Your task to perform on an android device: turn off wifi Image 0: 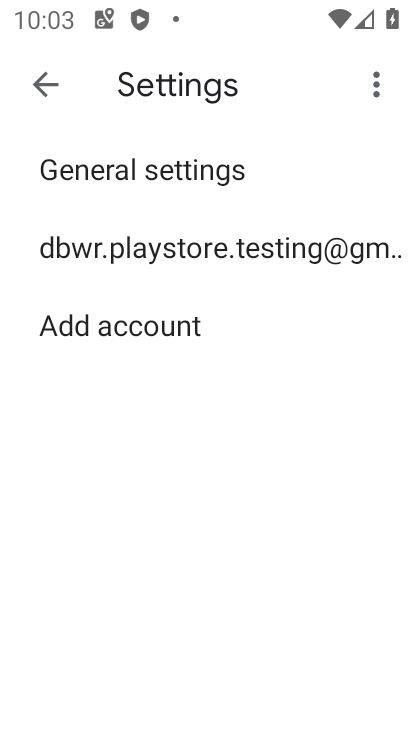
Step 0: press home button
Your task to perform on an android device: turn off wifi Image 1: 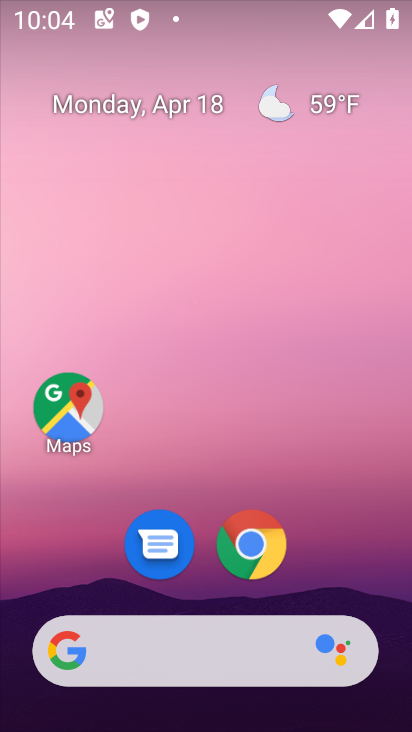
Step 1: drag from (319, 564) to (297, 184)
Your task to perform on an android device: turn off wifi Image 2: 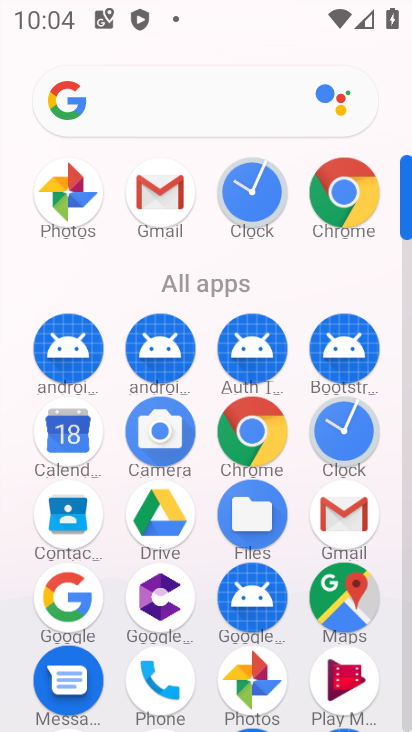
Step 2: drag from (268, 607) to (284, 166)
Your task to perform on an android device: turn off wifi Image 3: 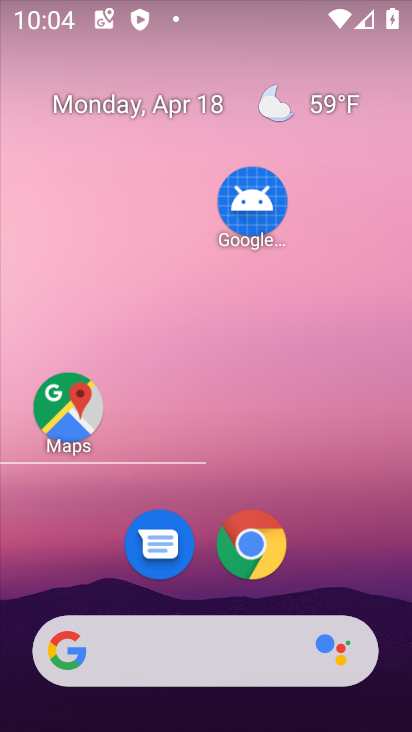
Step 3: press home button
Your task to perform on an android device: turn off wifi Image 4: 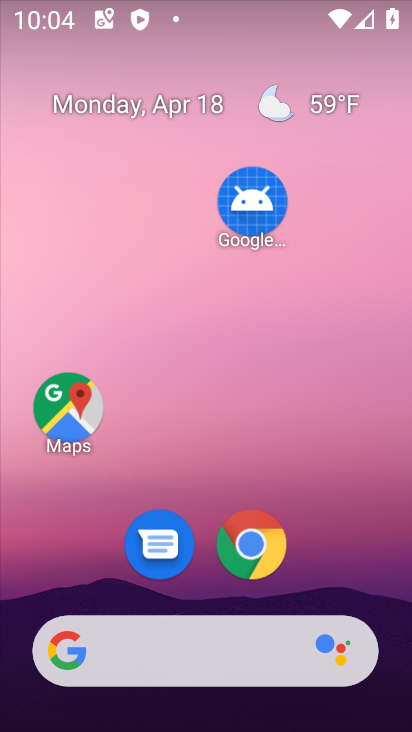
Step 4: drag from (302, 557) to (291, 211)
Your task to perform on an android device: turn off wifi Image 5: 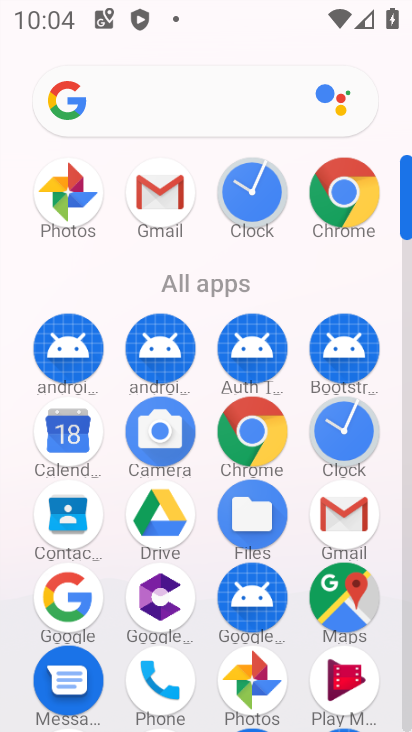
Step 5: drag from (283, 606) to (288, 170)
Your task to perform on an android device: turn off wifi Image 6: 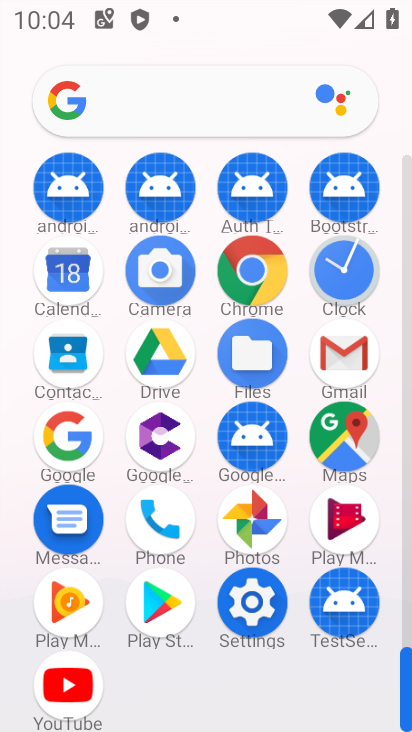
Step 6: click (256, 574)
Your task to perform on an android device: turn off wifi Image 7: 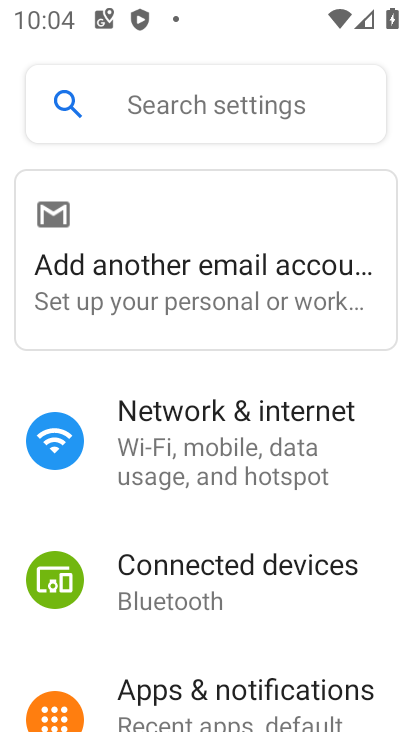
Step 7: click (212, 458)
Your task to perform on an android device: turn off wifi Image 8: 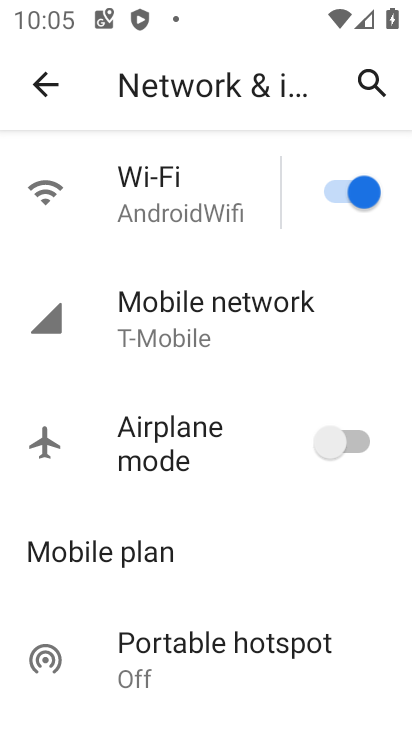
Step 8: click (332, 179)
Your task to perform on an android device: turn off wifi Image 9: 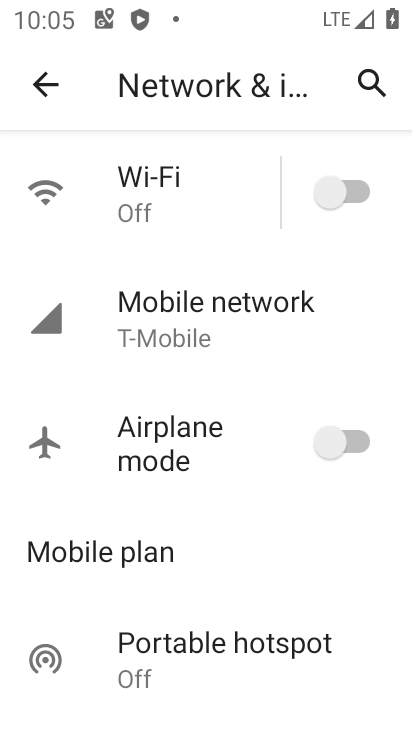
Step 9: task complete